Your task to perform on an android device: Show me recent news Image 0: 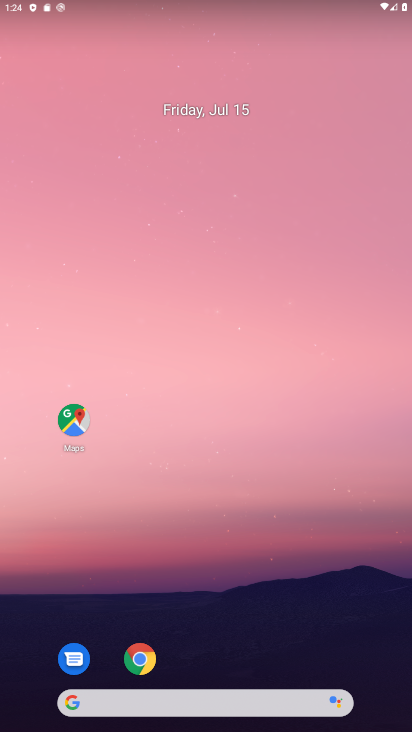
Step 0: drag from (16, 246) to (360, 215)
Your task to perform on an android device: Show me recent news Image 1: 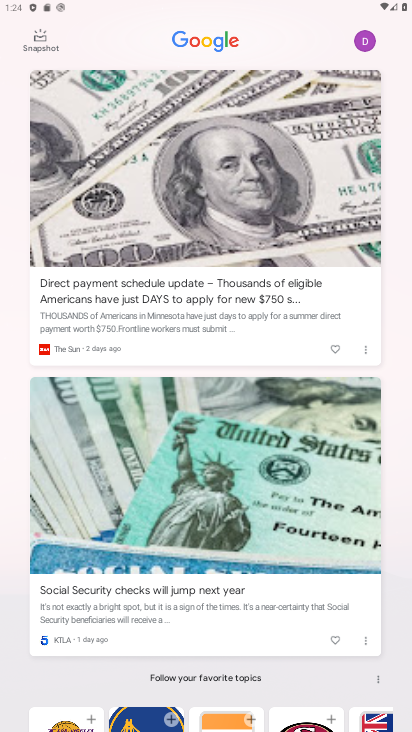
Step 1: task complete